Your task to perform on an android device: Go to Google maps Image 0: 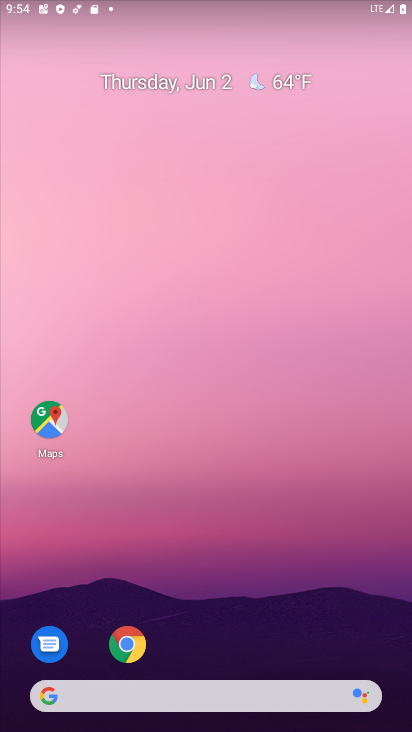
Step 0: click (52, 431)
Your task to perform on an android device: Go to Google maps Image 1: 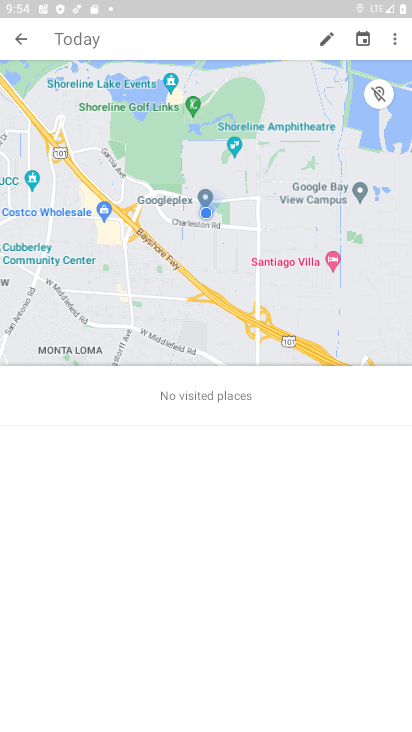
Step 1: task complete